Your task to perform on an android device: change notifications settings Image 0: 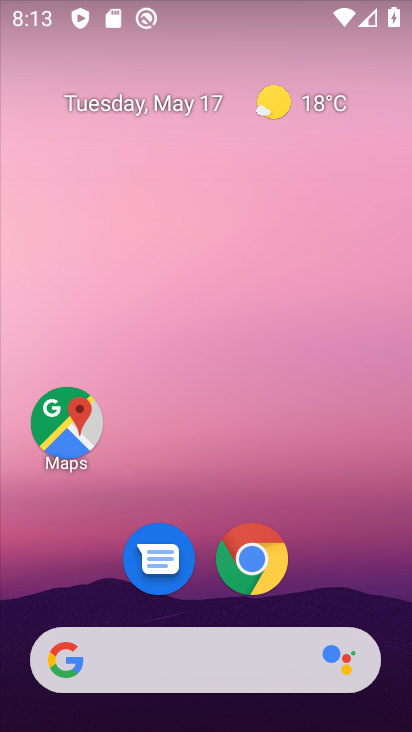
Step 0: drag from (158, 679) to (104, 70)
Your task to perform on an android device: change notifications settings Image 1: 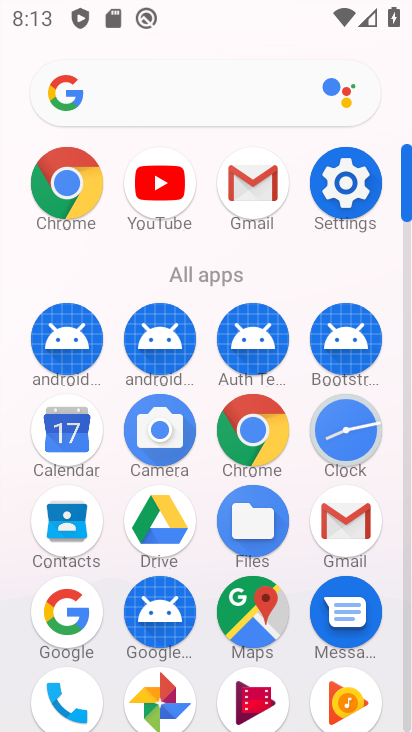
Step 1: click (324, 171)
Your task to perform on an android device: change notifications settings Image 2: 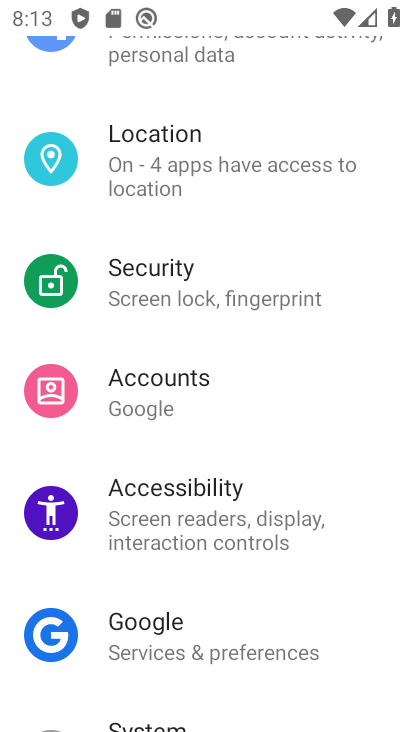
Step 2: drag from (193, 105) to (284, 656)
Your task to perform on an android device: change notifications settings Image 3: 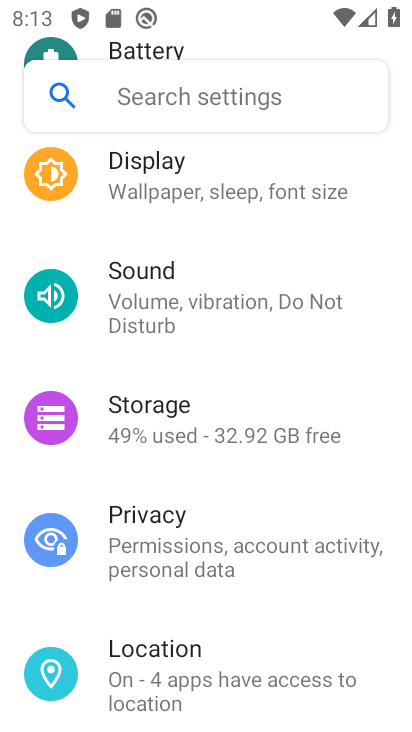
Step 3: click (164, 300)
Your task to perform on an android device: change notifications settings Image 4: 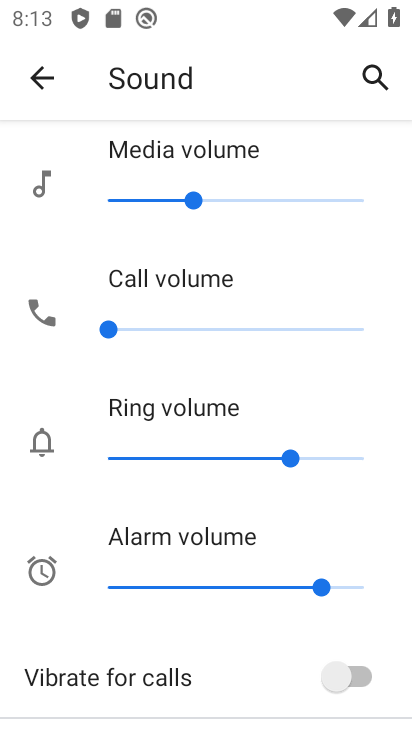
Step 4: drag from (108, 329) to (361, 297)
Your task to perform on an android device: change notifications settings Image 5: 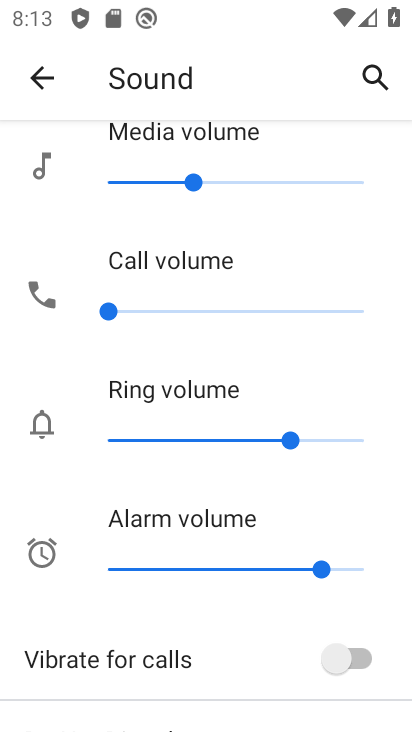
Step 5: click (318, 310)
Your task to perform on an android device: change notifications settings Image 6: 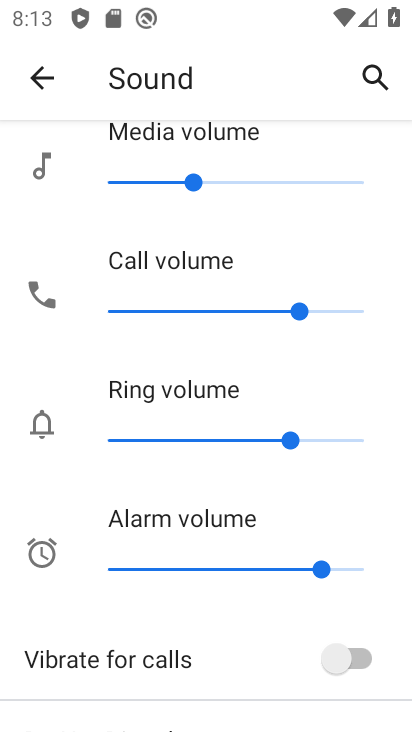
Step 6: click (357, 679)
Your task to perform on an android device: change notifications settings Image 7: 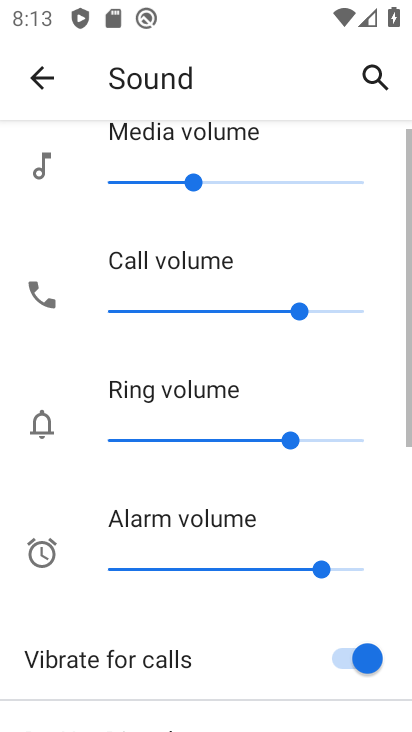
Step 7: task complete